Your task to perform on an android device: Open calendar and show me the third week of next month Image 0: 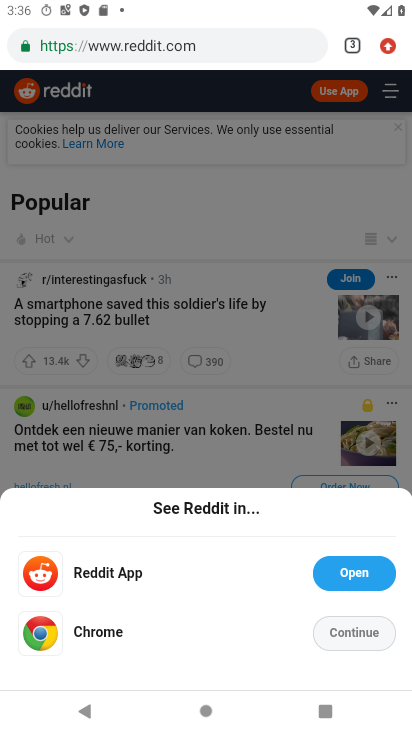
Step 0: press home button
Your task to perform on an android device: Open calendar and show me the third week of next month Image 1: 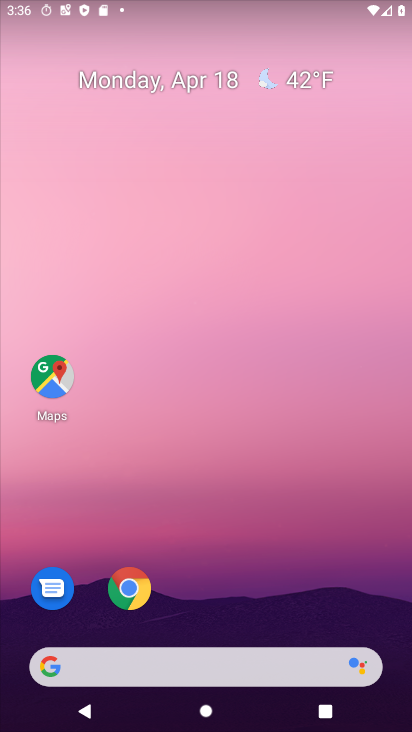
Step 1: click (197, 88)
Your task to perform on an android device: Open calendar and show me the third week of next month Image 2: 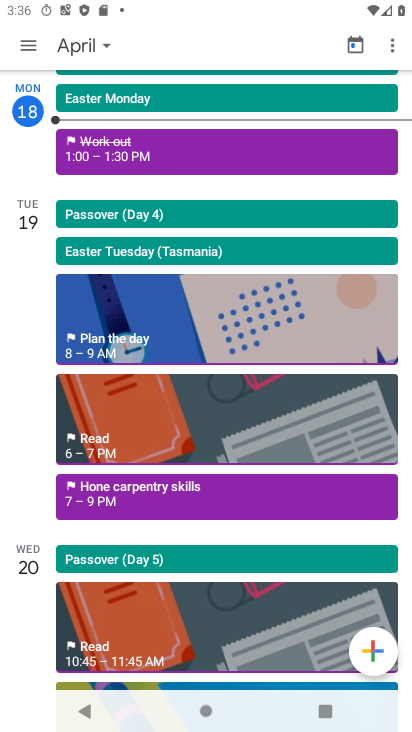
Step 2: click (104, 53)
Your task to perform on an android device: Open calendar and show me the third week of next month Image 3: 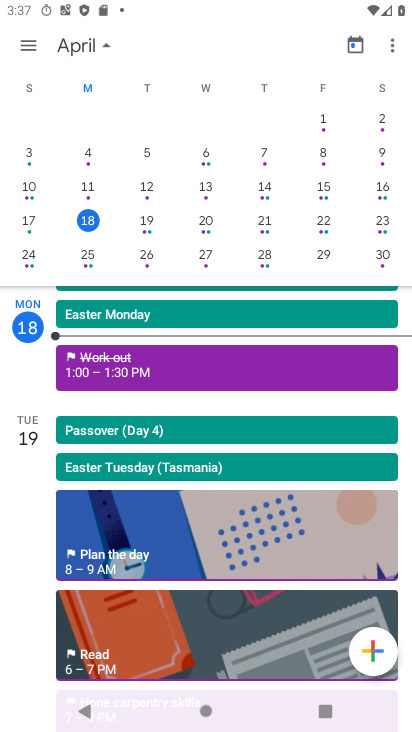
Step 3: drag from (348, 238) to (15, 353)
Your task to perform on an android device: Open calendar and show me the third week of next month Image 4: 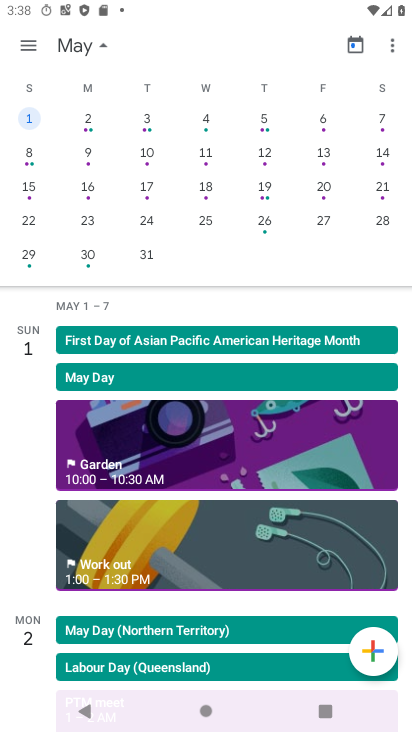
Step 4: click (231, 192)
Your task to perform on an android device: Open calendar and show me the third week of next month Image 5: 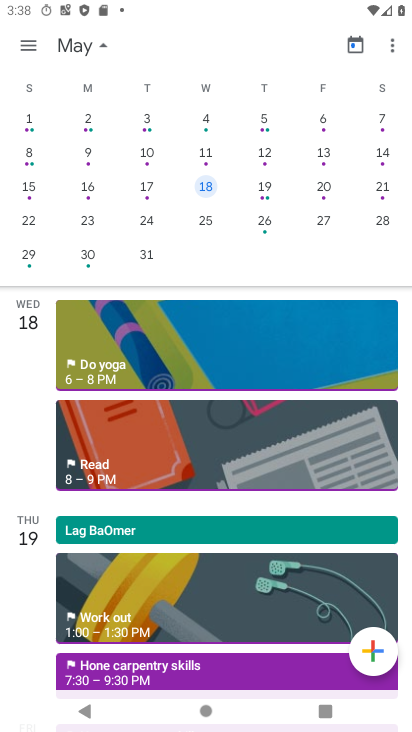
Step 5: task complete